Your task to perform on an android device: turn on translation in the chrome app Image 0: 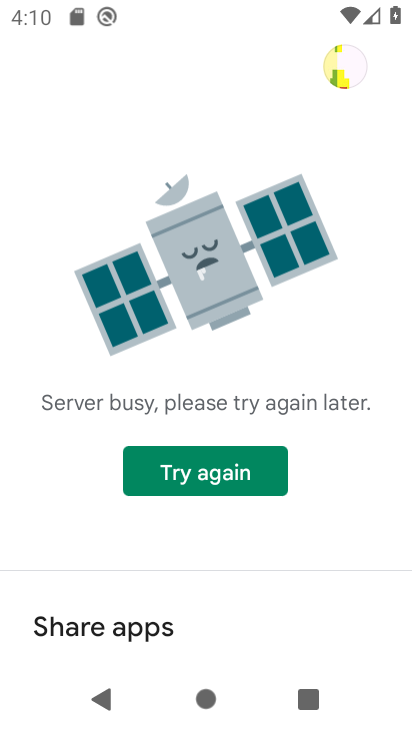
Step 0: press home button
Your task to perform on an android device: turn on translation in the chrome app Image 1: 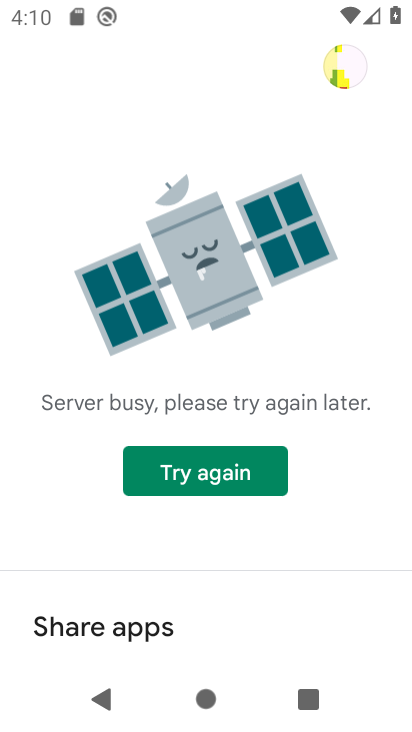
Step 1: press home button
Your task to perform on an android device: turn on translation in the chrome app Image 2: 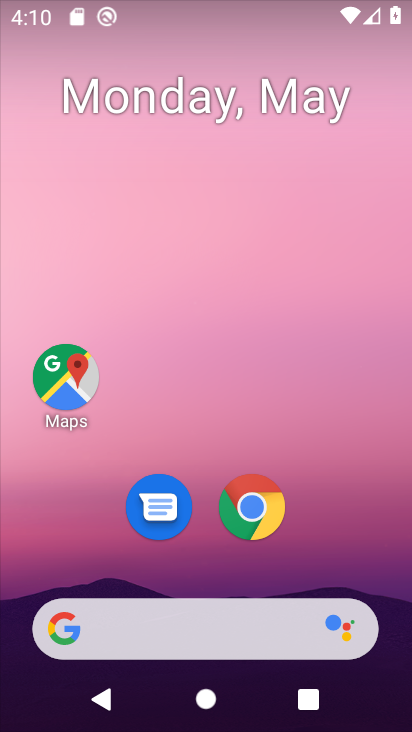
Step 2: click (261, 501)
Your task to perform on an android device: turn on translation in the chrome app Image 3: 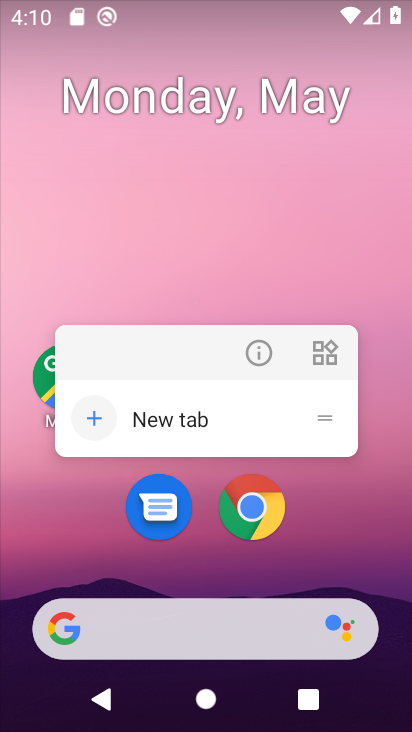
Step 3: click (258, 510)
Your task to perform on an android device: turn on translation in the chrome app Image 4: 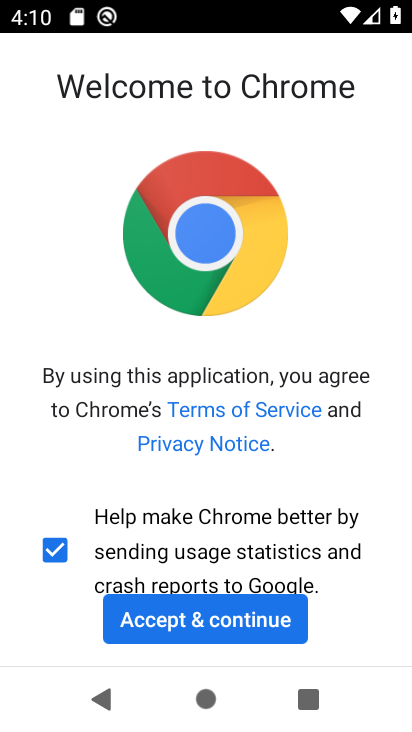
Step 4: click (277, 616)
Your task to perform on an android device: turn on translation in the chrome app Image 5: 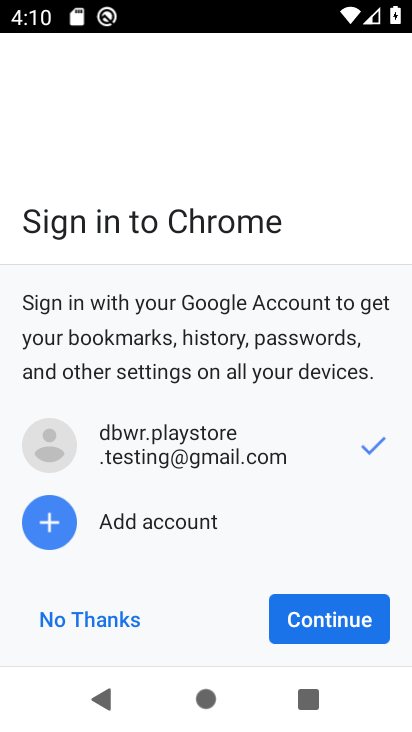
Step 5: click (363, 636)
Your task to perform on an android device: turn on translation in the chrome app Image 6: 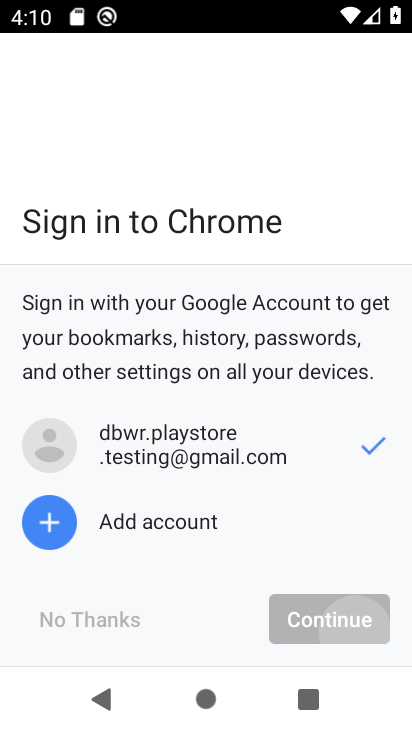
Step 6: click (363, 636)
Your task to perform on an android device: turn on translation in the chrome app Image 7: 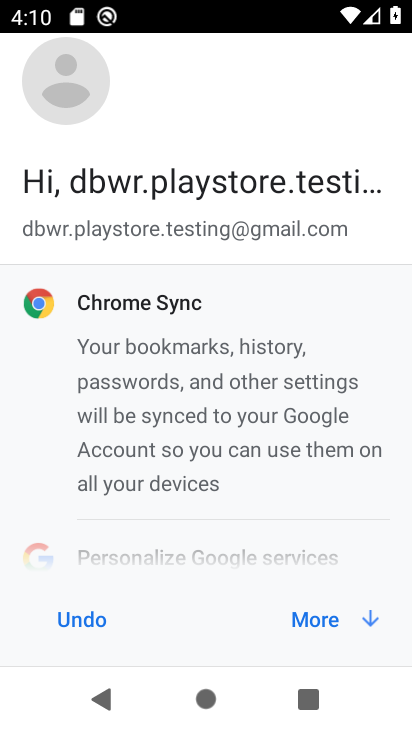
Step 7: click (363, 636)
Your task to perform on an android device: turn on translation in the chrome app Image 8: 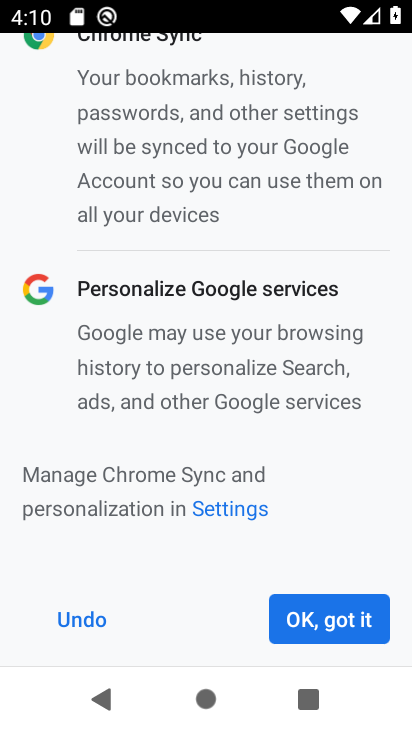
Step 8: click (363, 636)
Your task to perform on an android device: turn on translation in the chrome app Image 9: 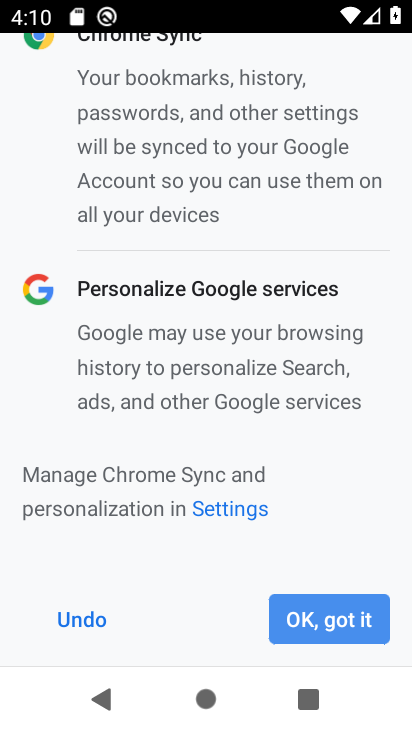
Step 9: click (363, 636)
Your task to perform on an android device: turn on translation in the chrome app Image 10: 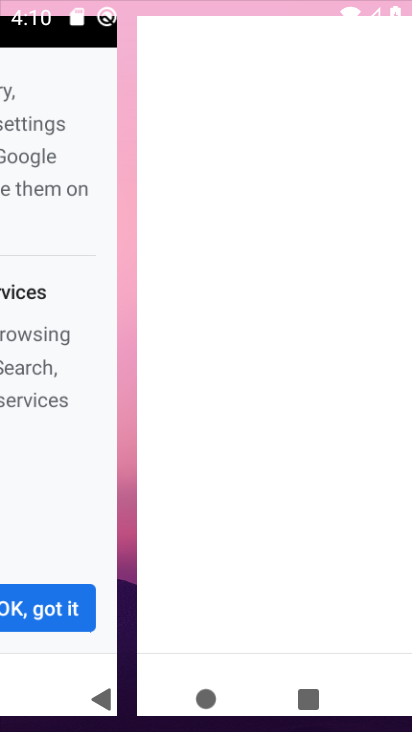
Step 10: click (363, 636)
Your task to perform on an android device: turn on translation in the chrome app Image 11: 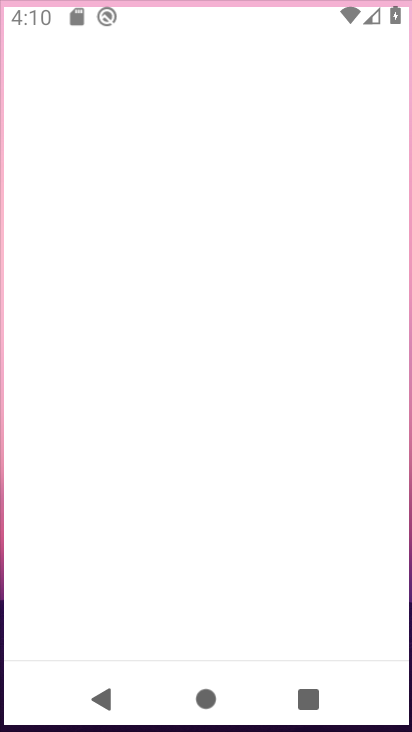
Step 11: click (363, 636)
Your task to perform on an android device: turn on translation in the chrome app Image 12: 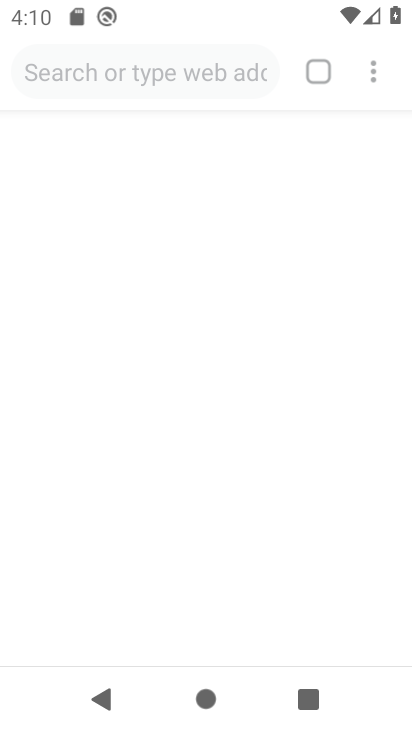
Step 12: click (363, 636)
Your task to perform on an android device: turn on translation in the chrome app Image 13: 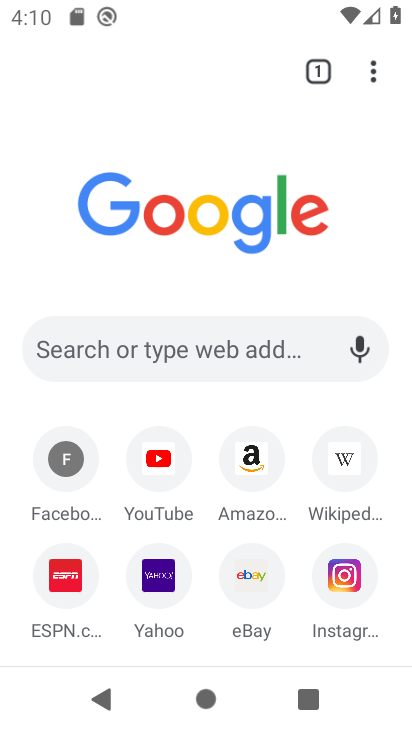
Step 13: click (368, 79)
Your task to perform on an android device: turn on translation in the chrome app Image 14: 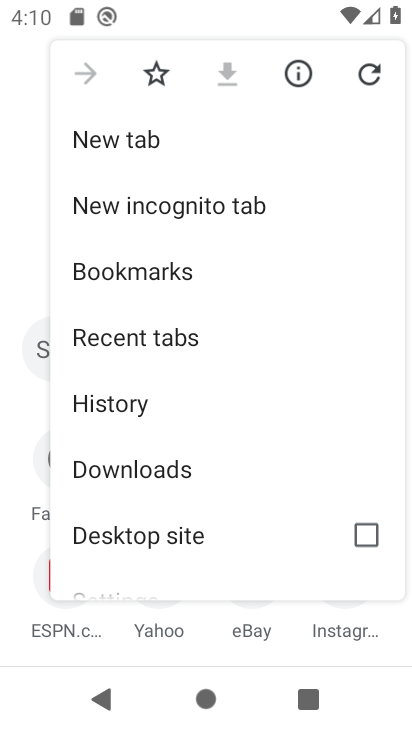
Step 14: drag from (205, 359) to (194, 233)
Your task to perform on an android device: turn on translation in the chrome app Image 15: 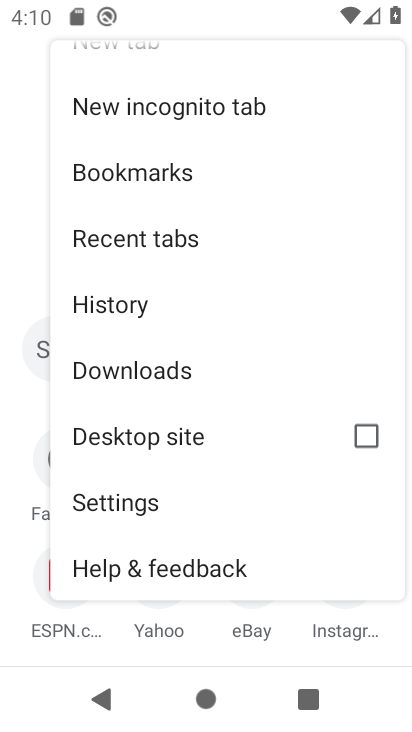
Step 15: click (112, 494)
Your task to perform on an android device: turn on translation in the chrome app Image 16: 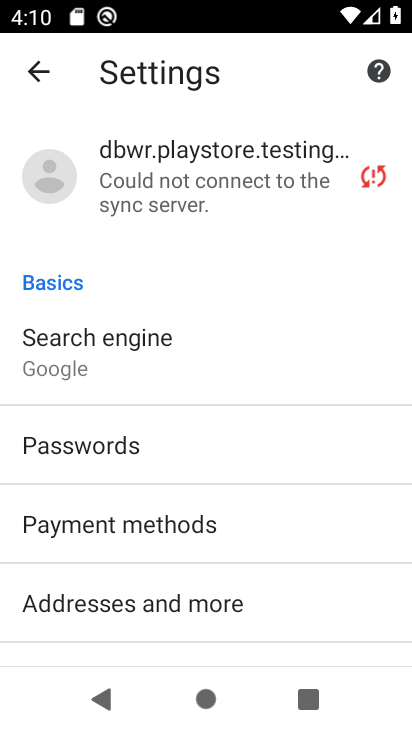
Step 16: drag from (153, 600) to (186, 303)
Your task to perform on an android device: turn on translation in the chrome app Image 17: 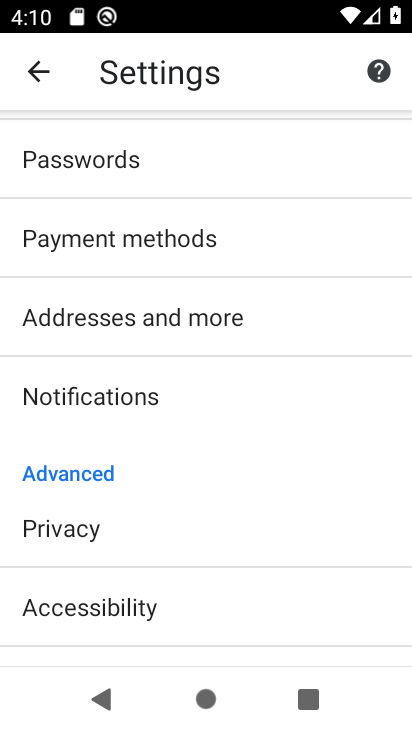
Step 17: drag from (211, 662) to (219, 380)
Your task to perform on an android device: turn on translation in the chrome app Image 18: 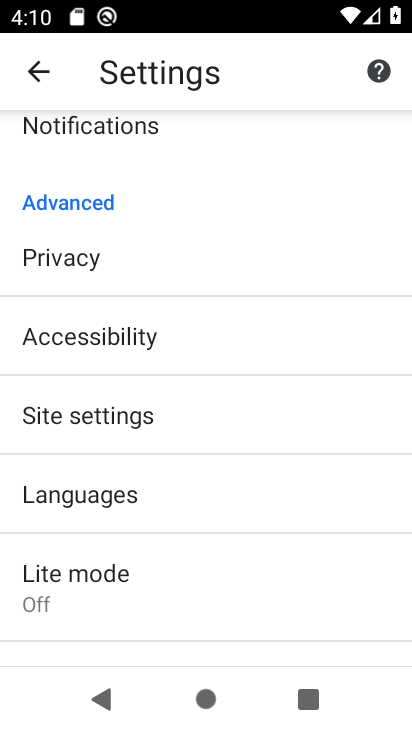
Step 18: click (120, 492)
Your task to perform on an android device: turn on translation in the chrome app Image 19: 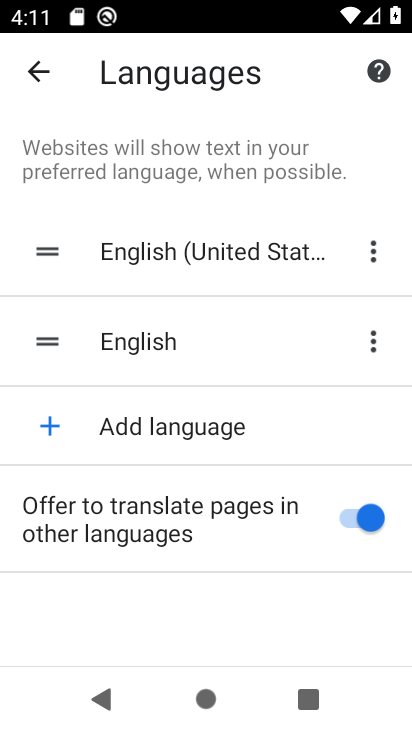
Step 19: task complete